Your task to perform on an android device: Search for Italian restaurants on Maps Image 0: 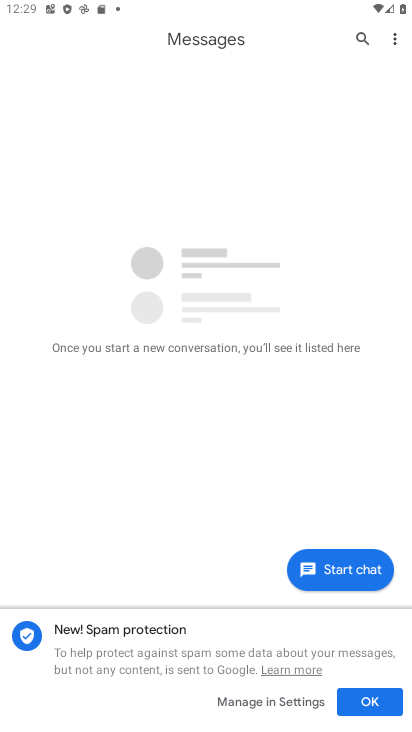
Step 0: press home button
Your task to perform on an android device: Search for Italian restaurants on Maps Image 1: 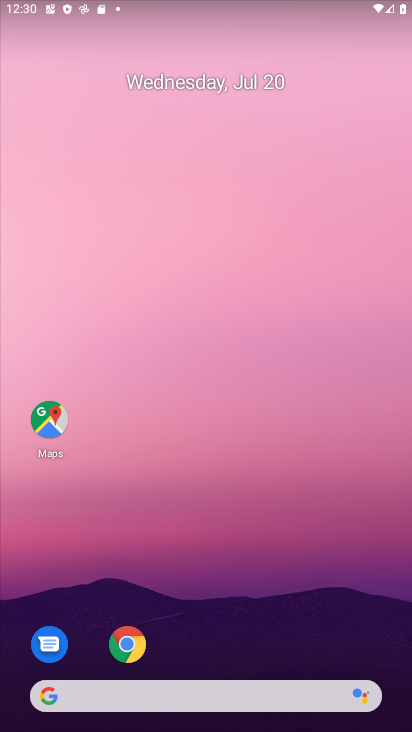
Step 1: click (51, 439)
Your task to perform on an android device: Search for Italian restaurants on Maps Image 2: 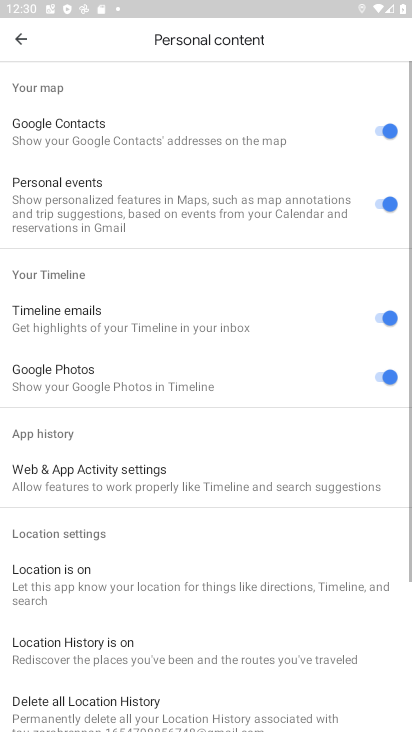
Step 2: click (21, 44)
Your task to perform on an android device: Search for Italian restaurants on Maps Image 3: 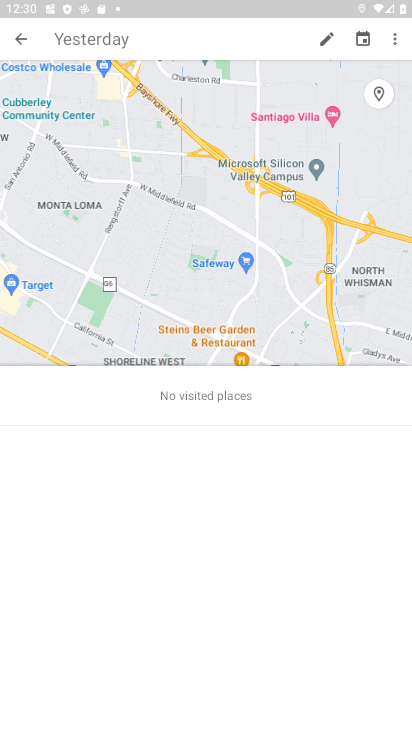
Step 3: click (21, 44)
Your task to perform on an android device: Search for Italian restaurants on Maps Image 4: 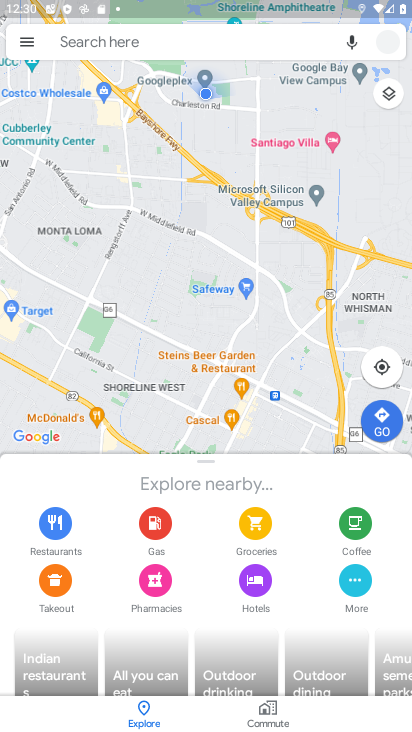
Step 4: click (125, 44)
Your task to perform on an android device: Search for Italian restaurants on Maps Image 5: 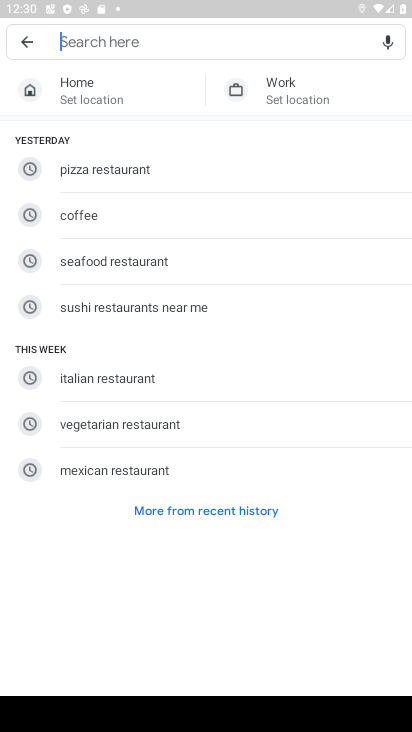
Step 5: type " Italian restaurants "
Your task to perform on an android device: Search for Italian restaurants on Maps Image 6: 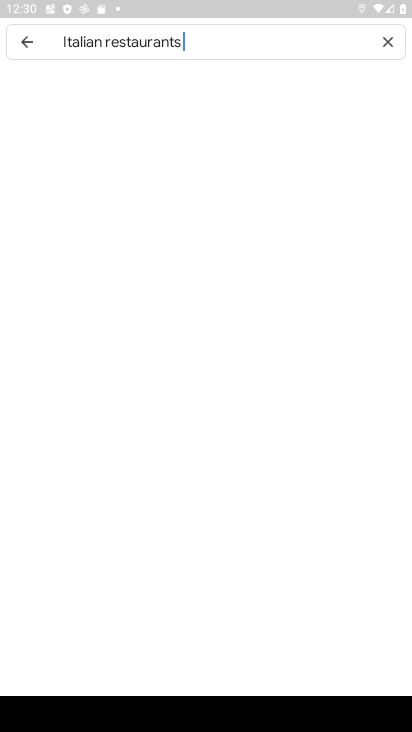
Step 6: type ""
Your task to perform on an android device: Search for Italian restaurants on Maps Image 7: 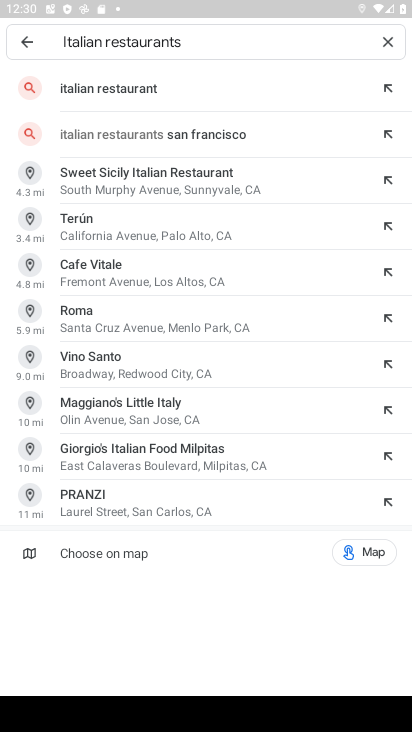
Step 7: click (129, 90)
Your task to perform on an android device: Search for Italian restaurants on Maps Image 8: 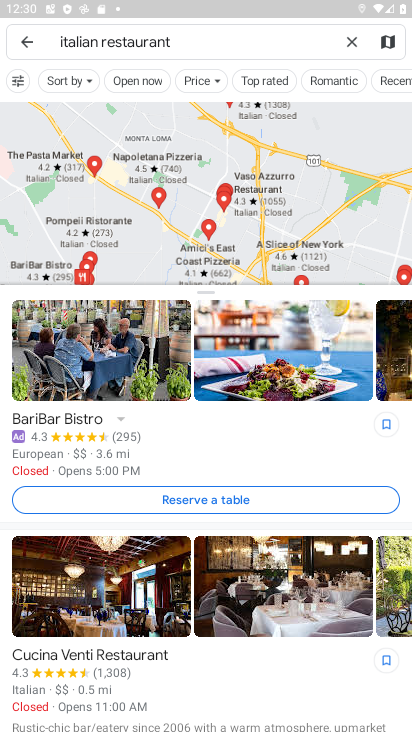
Step 8: task complete